Your task to perform on an android device: change text size in settings app Image 0: 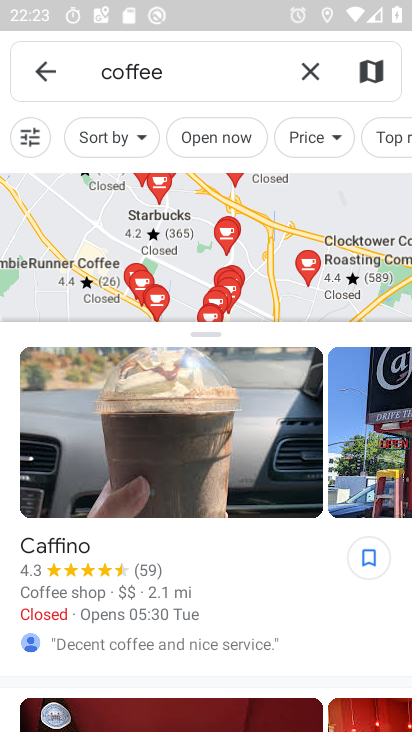
Step 0: press home button
Your task to perform on an android device: change text size in settings app Image 1: 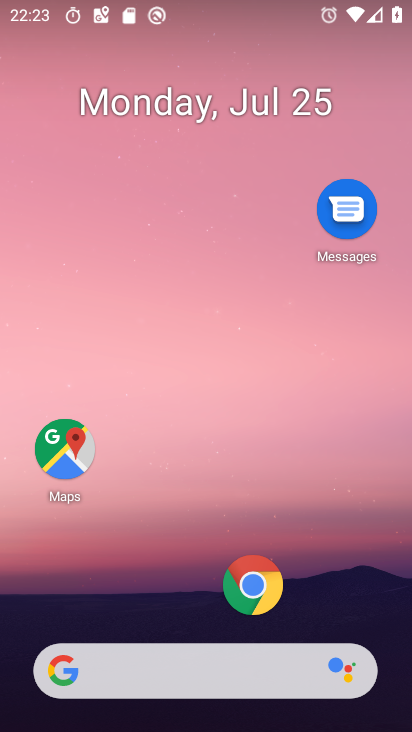
Step 1: drag from (199, 670) to (314, 148)
Your task to perform on an android device: change text size in settings app Image 2: 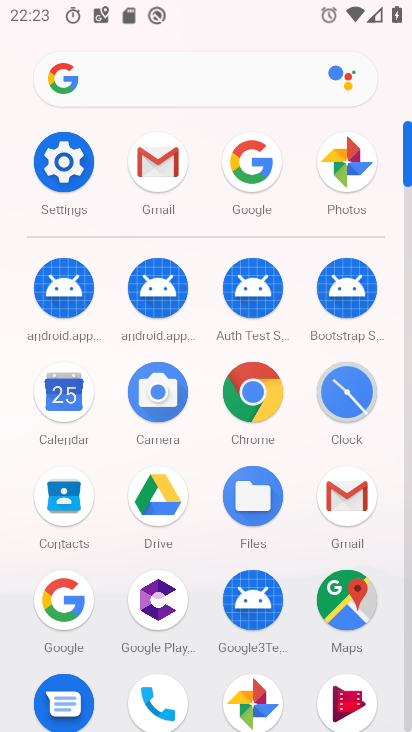
Step 2: click (55, 166)
Your task to perform on an android device: change text size in settings app Image 3: 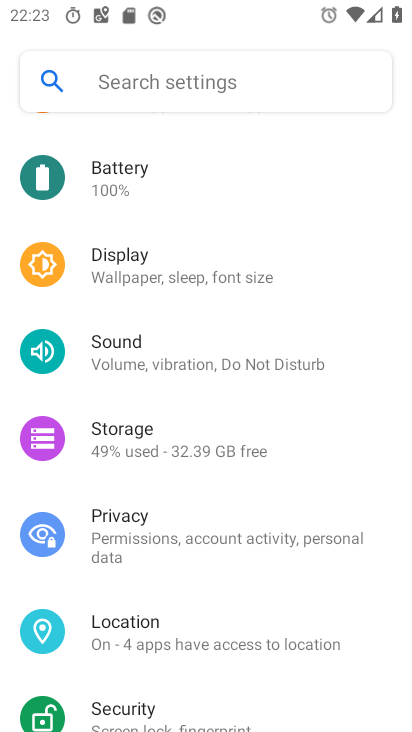
Step 3: drag from (306, 336) to (238, 655)
Your task to perform on an android device: change text size in settings app Image 4: 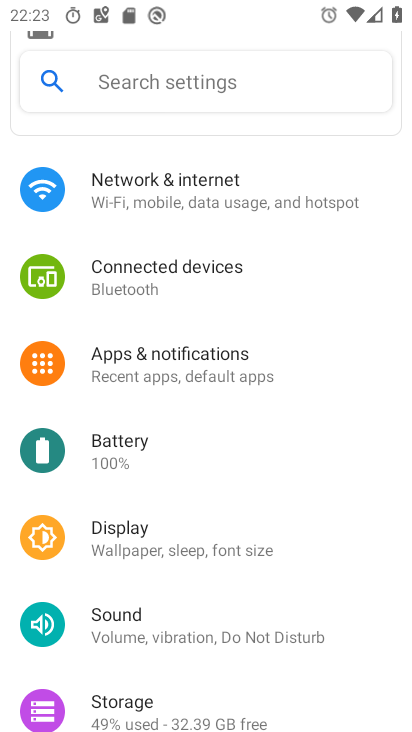
Step 4: click (142, 532)
Your task to perform on an android device: change text size in settings app Image 5: 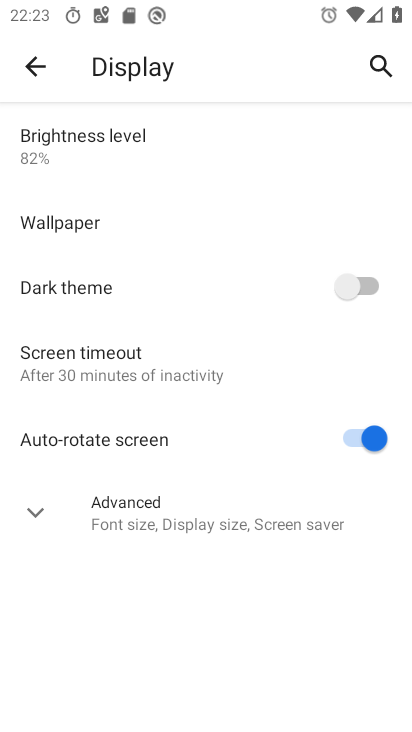
Step 5: click (131, 517)
Your task to perform on an android device: change text size in settings app Image 6: 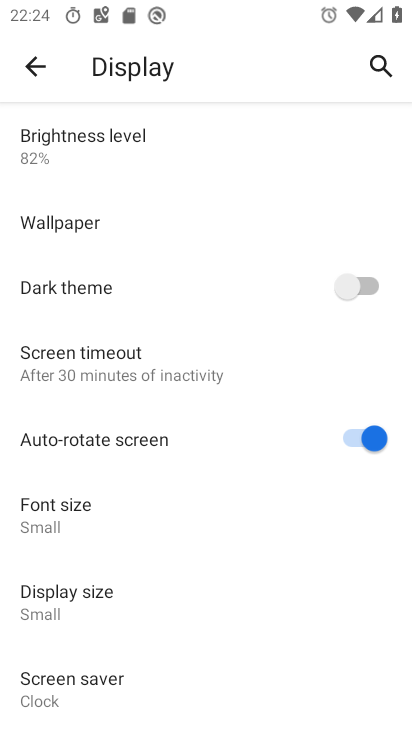
Step 6: click (73, 514)
Your task to perform on an android device: change text size in settings app Image 7: 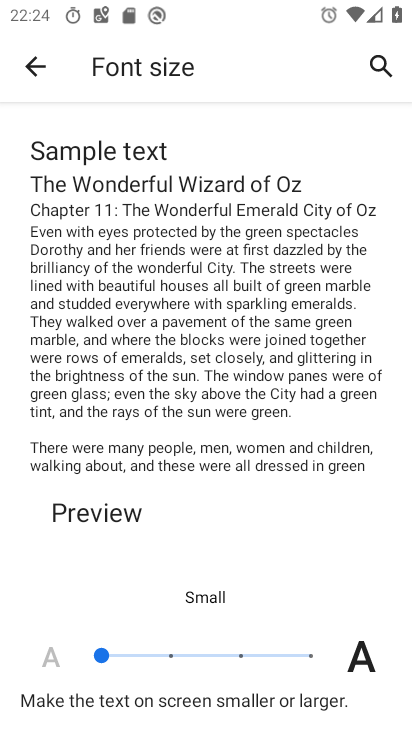
Step 7: click (168, 654)
Your task to perform on an android device: change text size in settings app Image 8: 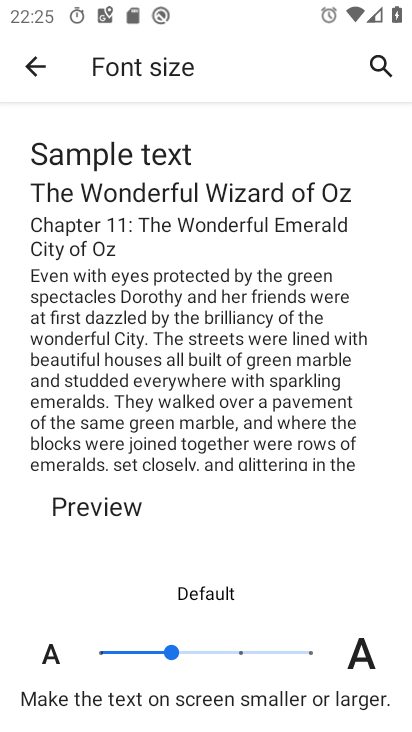
Step 8: task complete